Your task to perform on an android device: Open Chrome and go to the settings page Image 0: 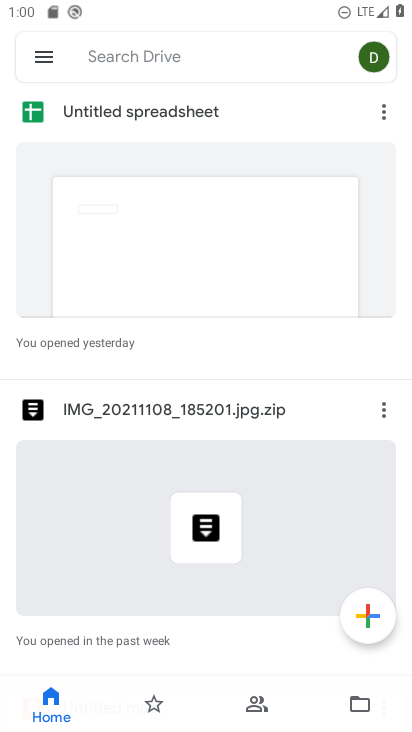
Step 0: press home button
Your task to perform on an android device: Open Chrome and go to the settings page Image 1: 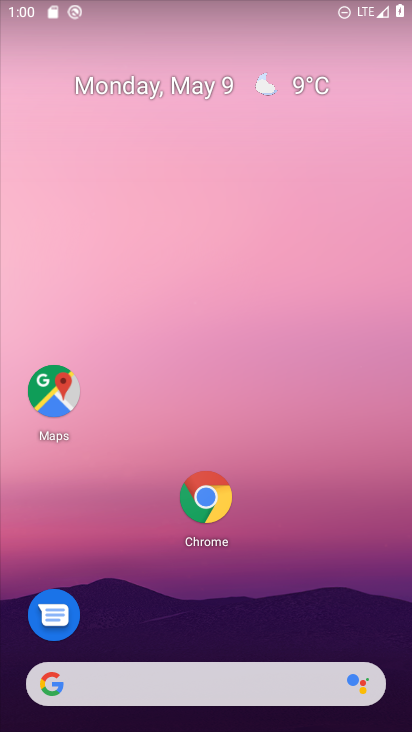
Step 1: drag from (355, 619) to (296, 132)
Your task to perform on an android device: Open Chrome and go to the settings page Image 2: 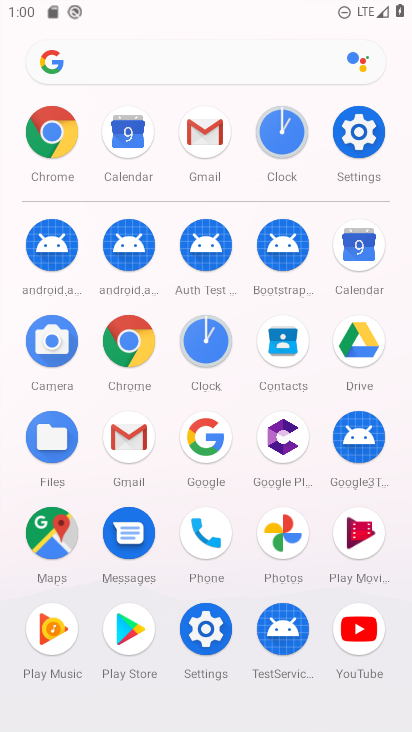
Step 2: click (132, 345)
Your task to perform on an android device: Open Chrome and go to the settings page Image 3: 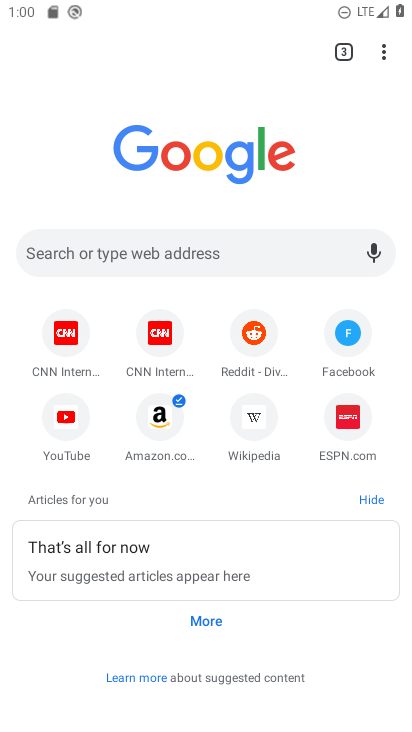
Step 3: click (394, 52)
Your task to perform on an android device: Open Chrome and go to the settings page Image 4: 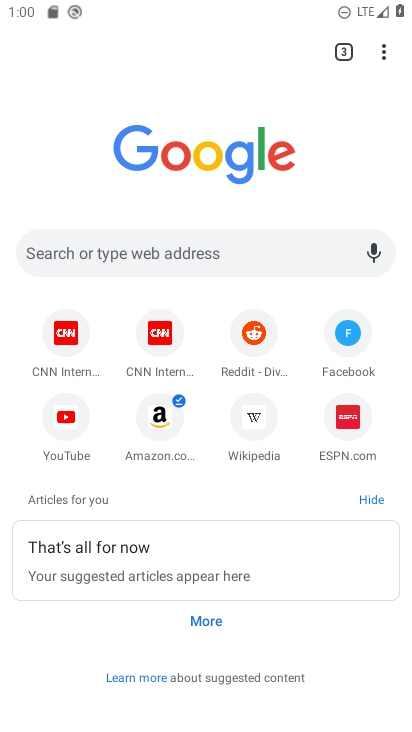
Step 4: click (394, 52)
Your task to perform on an android device: Open Chrome and go to the settings page Image 5: 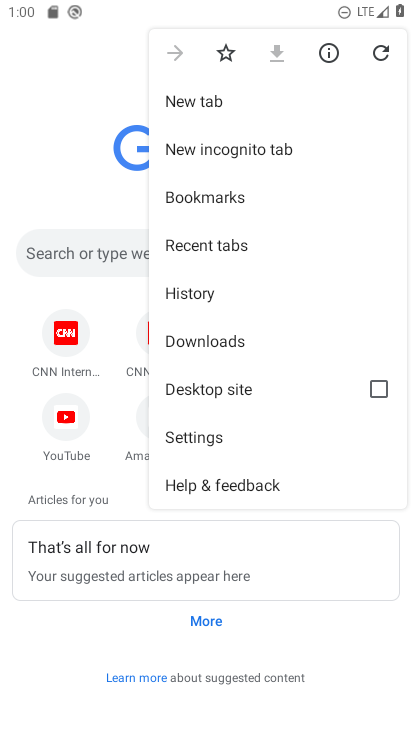
Step 5: click (210, 432)
Your task to perform on an android device: Open Chrome and go to the settings page Image 6: 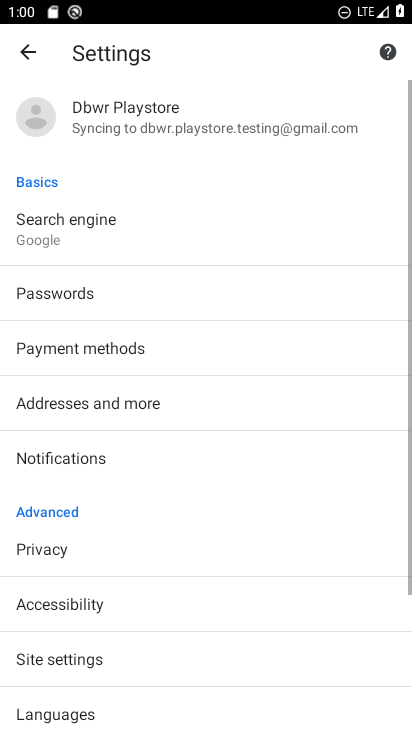
Step 6: task complete